Your task to perform on an android device: open wifi settings Image 0: 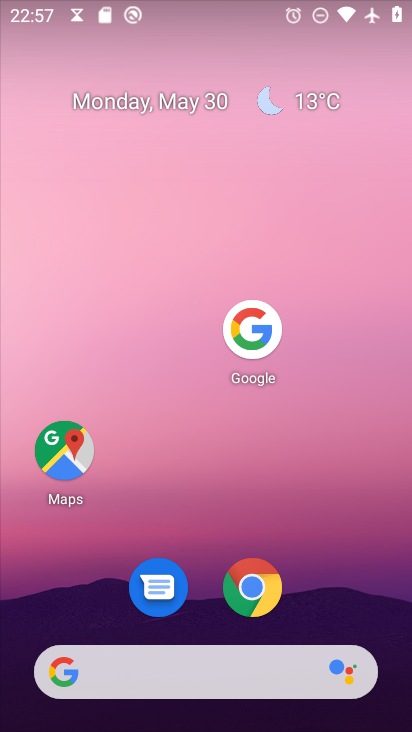
Step 0: drag from (208, 640) to (339, 43)
Your task to perform on an android device: open wifi settings Image 1: 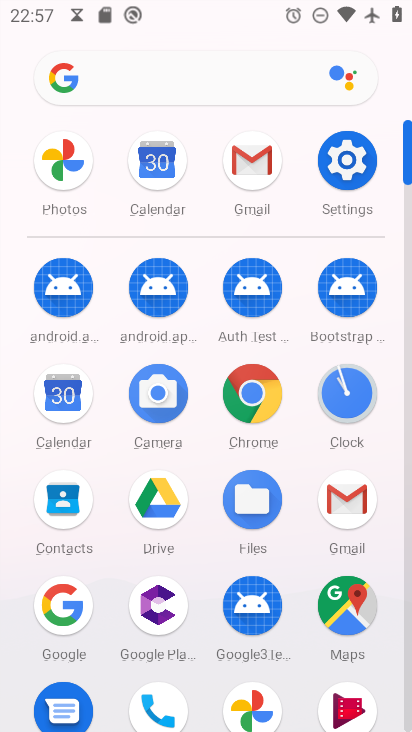
Step 1: click (344, 159)
Your task to perform on an android device: open wifi settings Image 2: 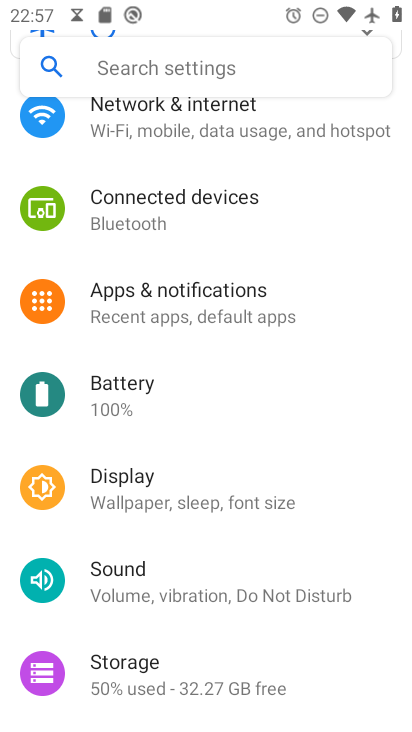
Step 2: click (218, 111)
Your task to perform on an android device: open wifi settings Image 3: 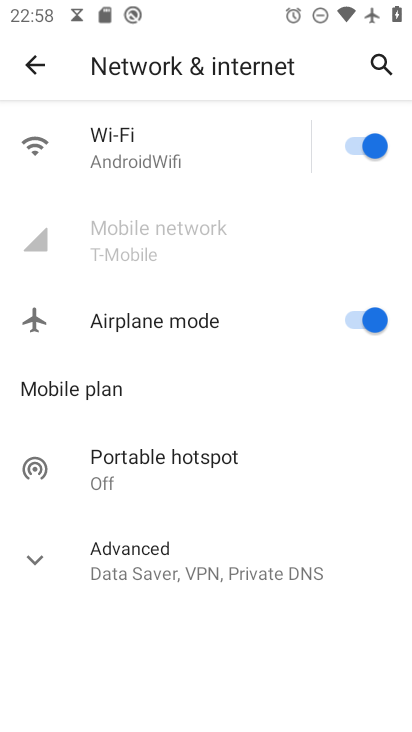
Step 3: task complete